Your task to perform on an android device: Go to eBay Image 0: 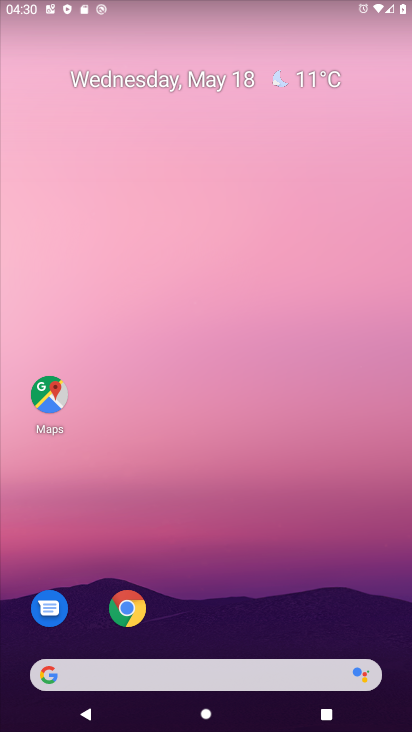
Step 0: click (187, 619)
Your task to perform on an android device: Go to eBay Image 1: 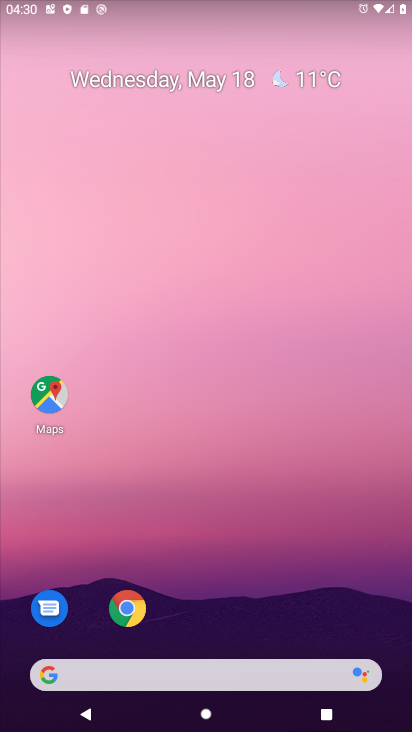
Step 1: click (121, 621)
Your task to perform on an android device: Go to eBay Image 2: 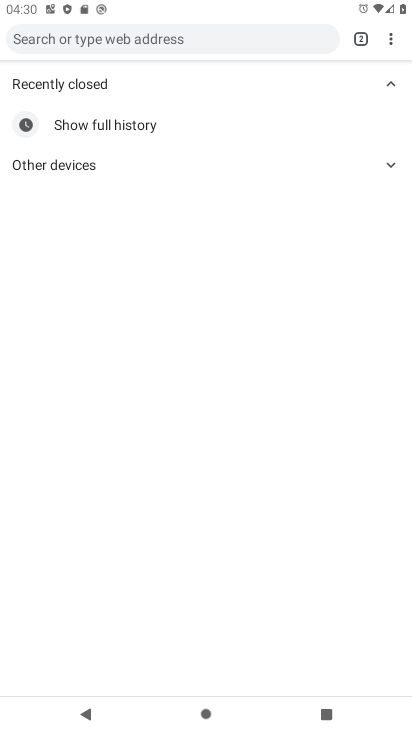
Step 2: click (191, 48)
Your task to perform on an android device: Go to eBay Image 3: 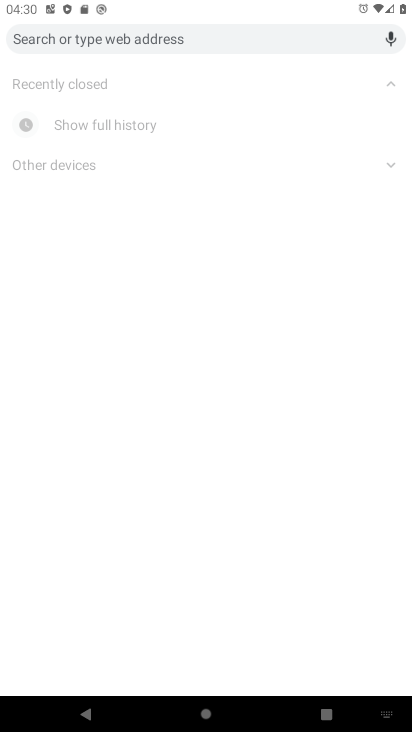
Step 3: type "ebay"
Your task to perform on an android device: Go to eBay Image 4: 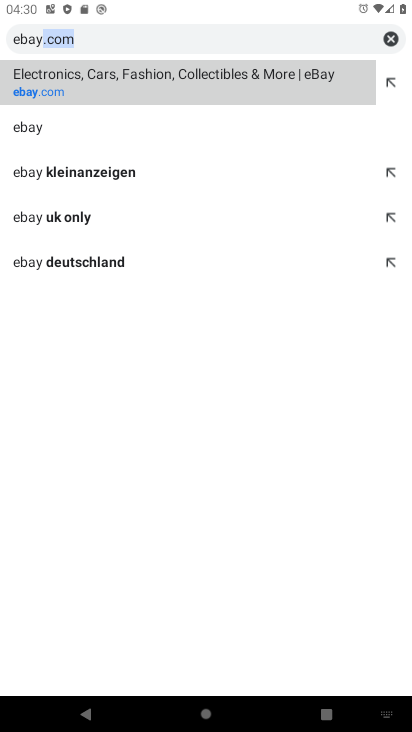
Step 4: click (49, 86)
Your task to perform on an android device: Go to eBay Image 5: 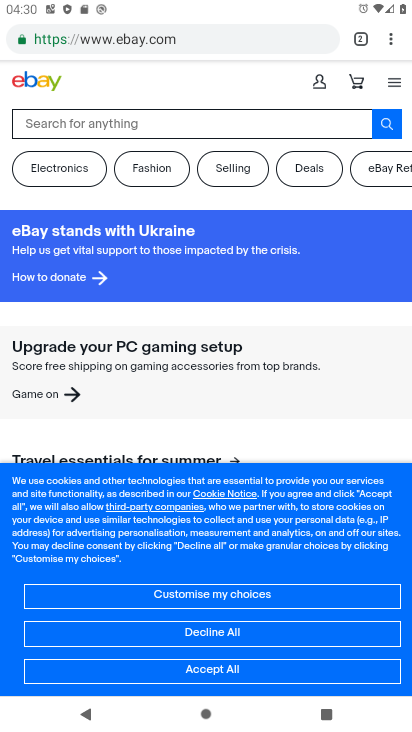
Step 5: task complete